Your task to perform on an android device: Go to Amazon Image 0: 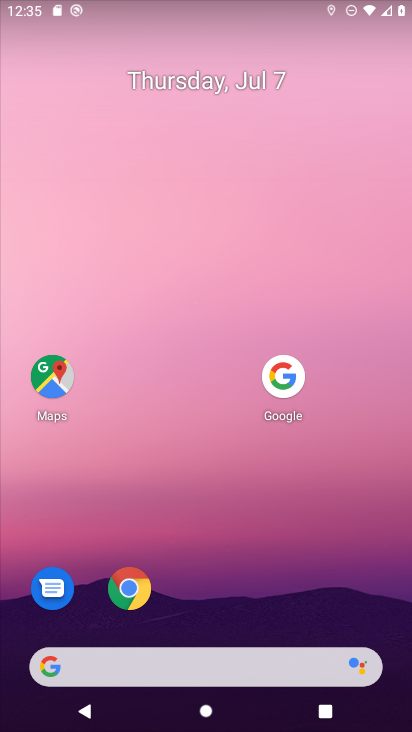
Step 0: click (129, 588)
Your task to perform on an android device: Go to Amazon Image 1: 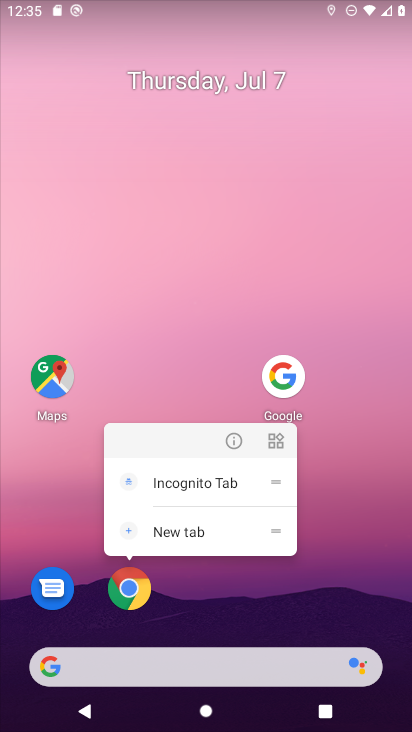
Step 1: click (135, 595)
Your task to perform on an android device: Go to Amazon Image 2: 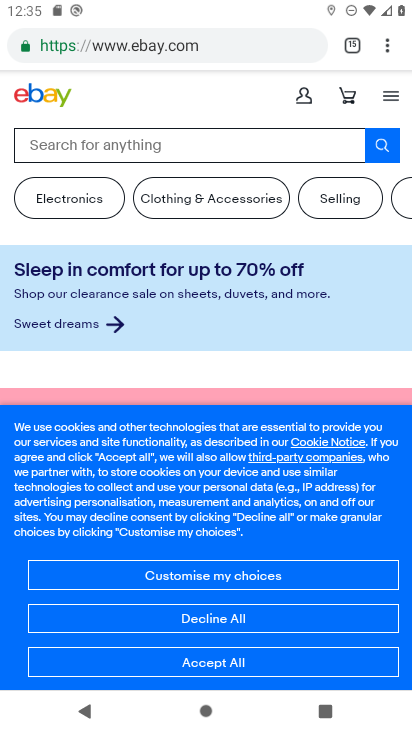
Step 2: drag from (387, 42) to (259, 100)
Your task to perform on an android device: Go to Amazon Image 3: 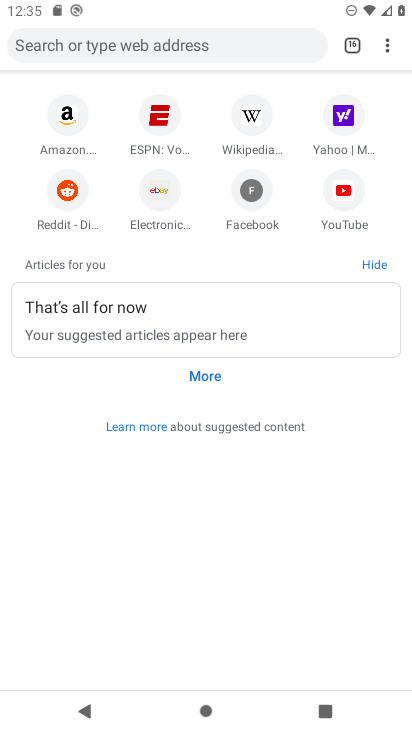
Step 3: click (73, 114)
Your task to perform on an android device: Go to Amazon Image 4: 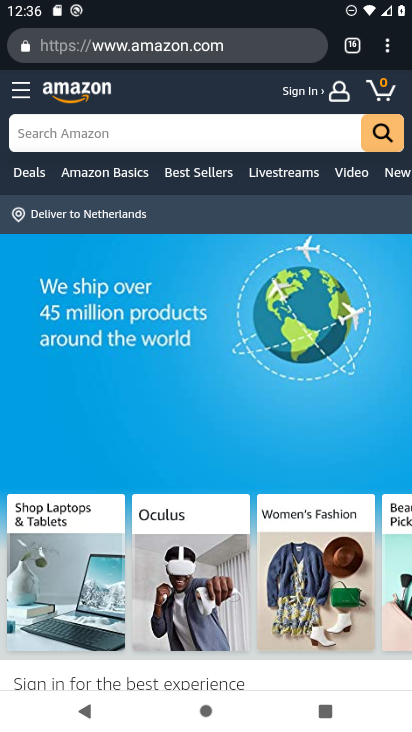
Step 4: task complete